Your task to perform on an android device: toggle airplane mode Image 0: 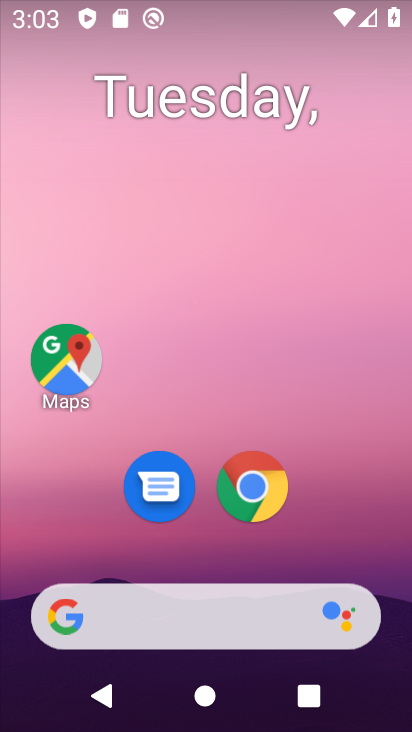
Step 0: drag from (224, 3) to (253, 589)
Your task to perform on an android device: toggle airplane mode Image 1: 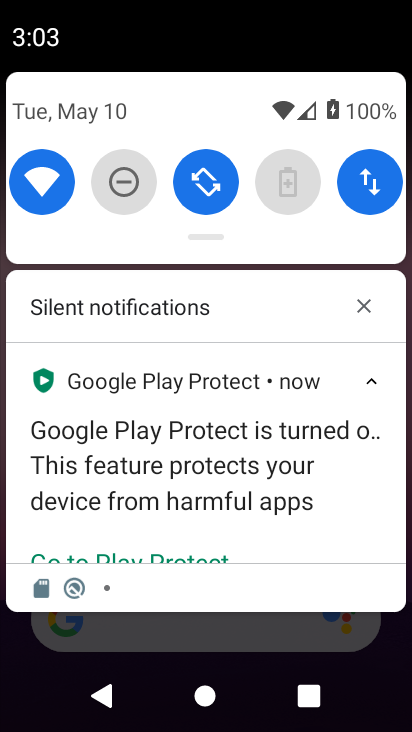
Step 1: drag from (233, 239) to (259, 715)
Your task to perform on an android device: toggle airplane mode Image 2: 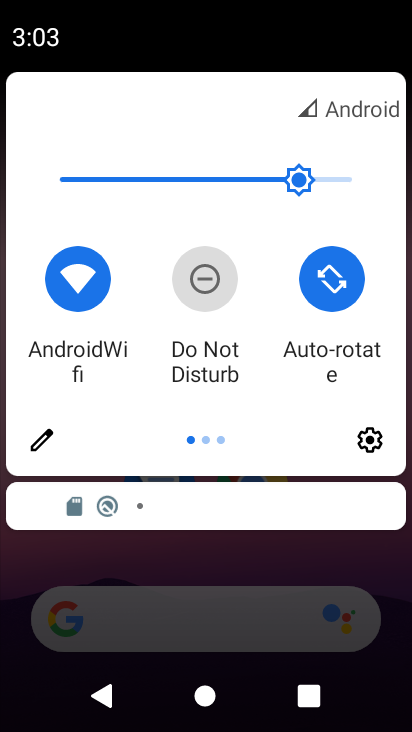
Step 2: drag from (0, 312) to (0, 350)
Your task to perform on an android device: toggle airplane mode Image 3: 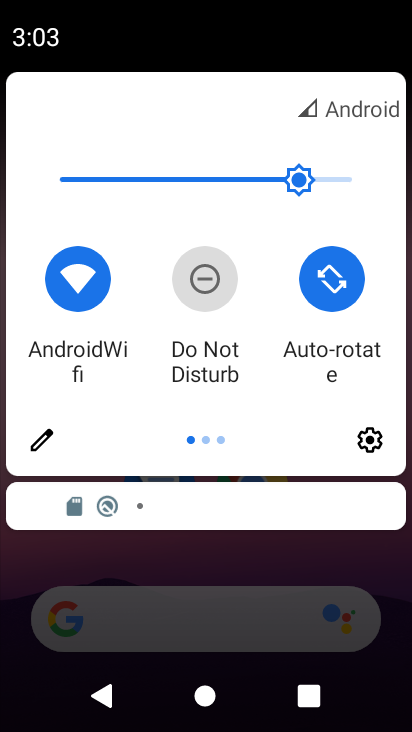
Step 3: drag from (356, 328) to (13, 351)
Your task to perform on an android device: toggle airplane mode Image 4: 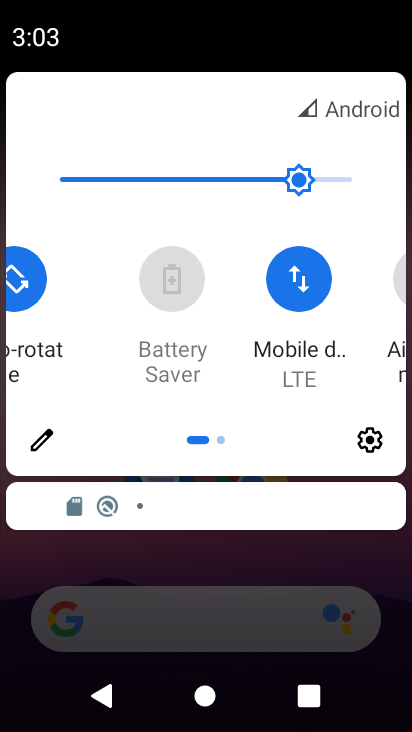
Step 4: drag from (121, 303) to (2, 301)
Your task to perform on an android device: toggle airplane mode Image 5: 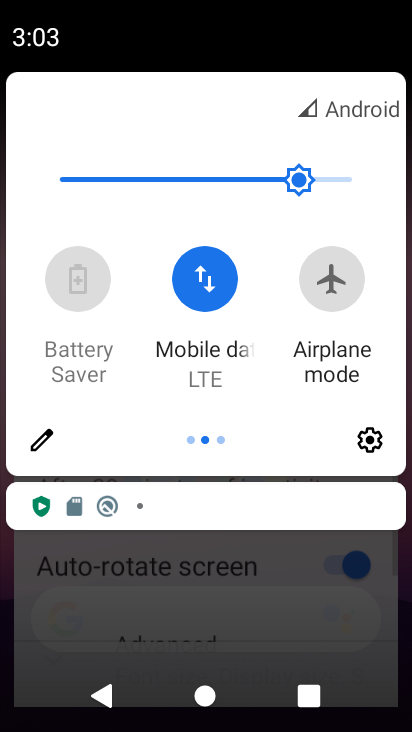
Step 5: click (339, 285)
Your task to perform on an android device: toggle airplane mode Image 6: 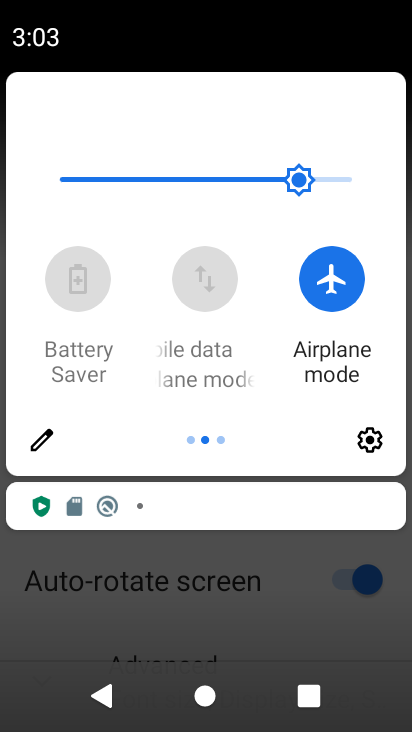
Step 6: task complete